Your task to perform on an android device: toggle notification dots Image 0: 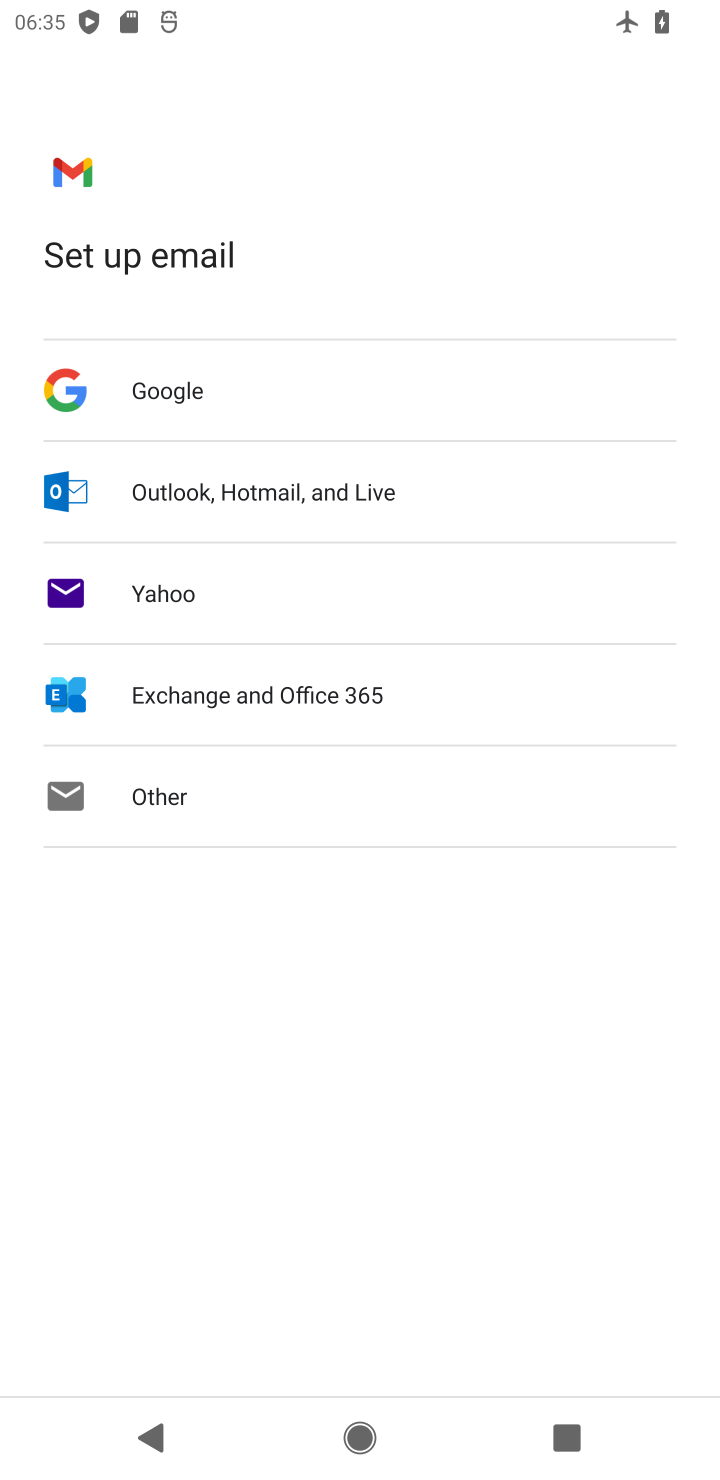
Step 0: press home button
Your task to perform on an android device: toggle notification dots Image 1: 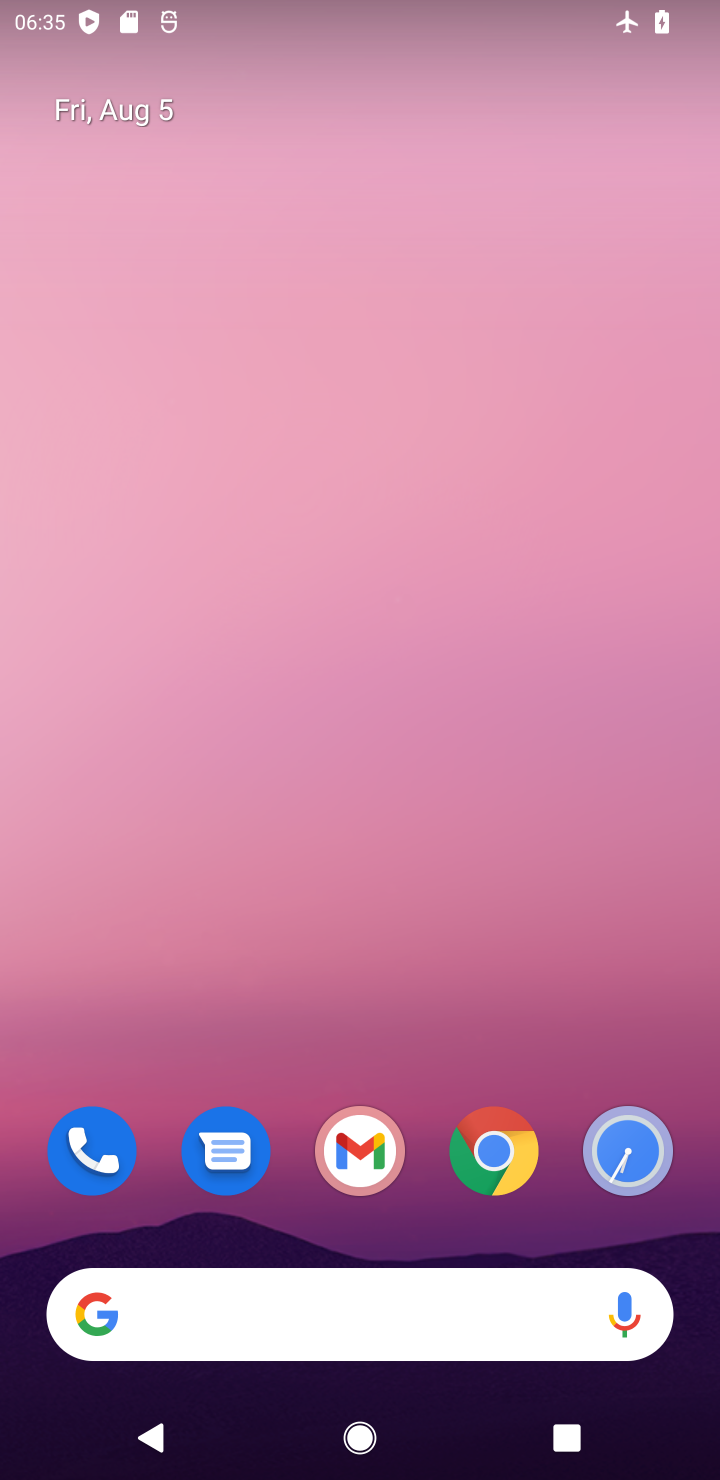
Step 1: drag from (381, 1246) to (290, 6)
Your task to perform on an android device: toggle notification dots Image 2: 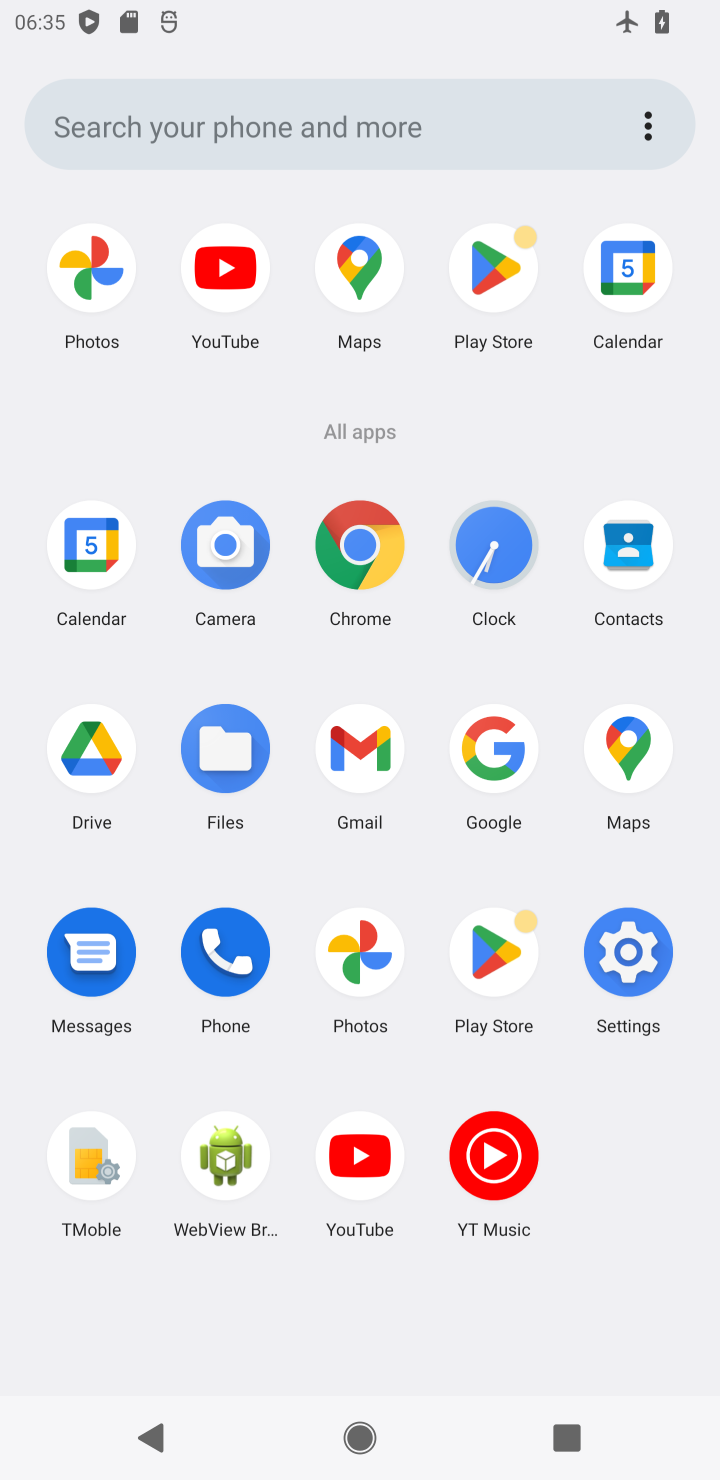
Step 2: click (331, 715)
Your task to perform on an android device: toggle notification dots Image 3: 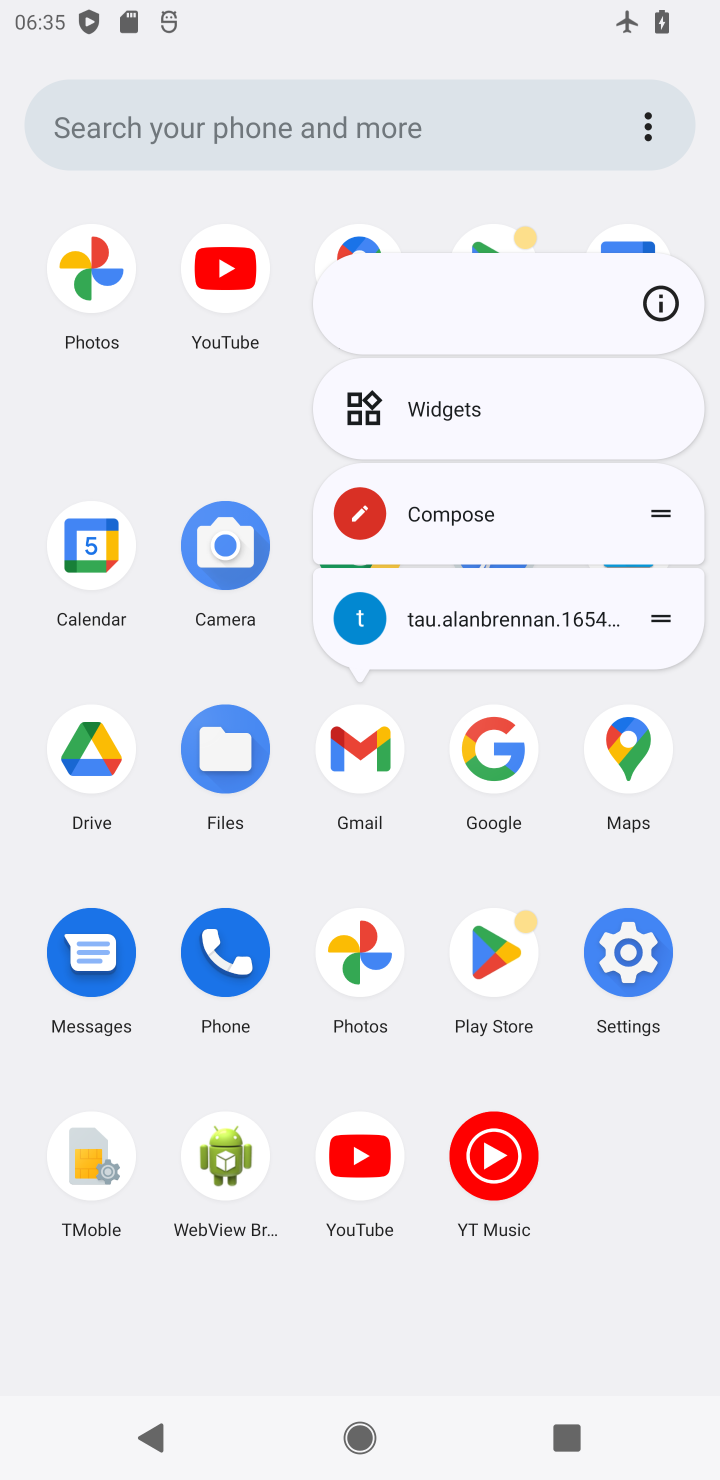
Step 3: click (663, 985)
Your task to perform on an android device: toggle notification dots Image 4: 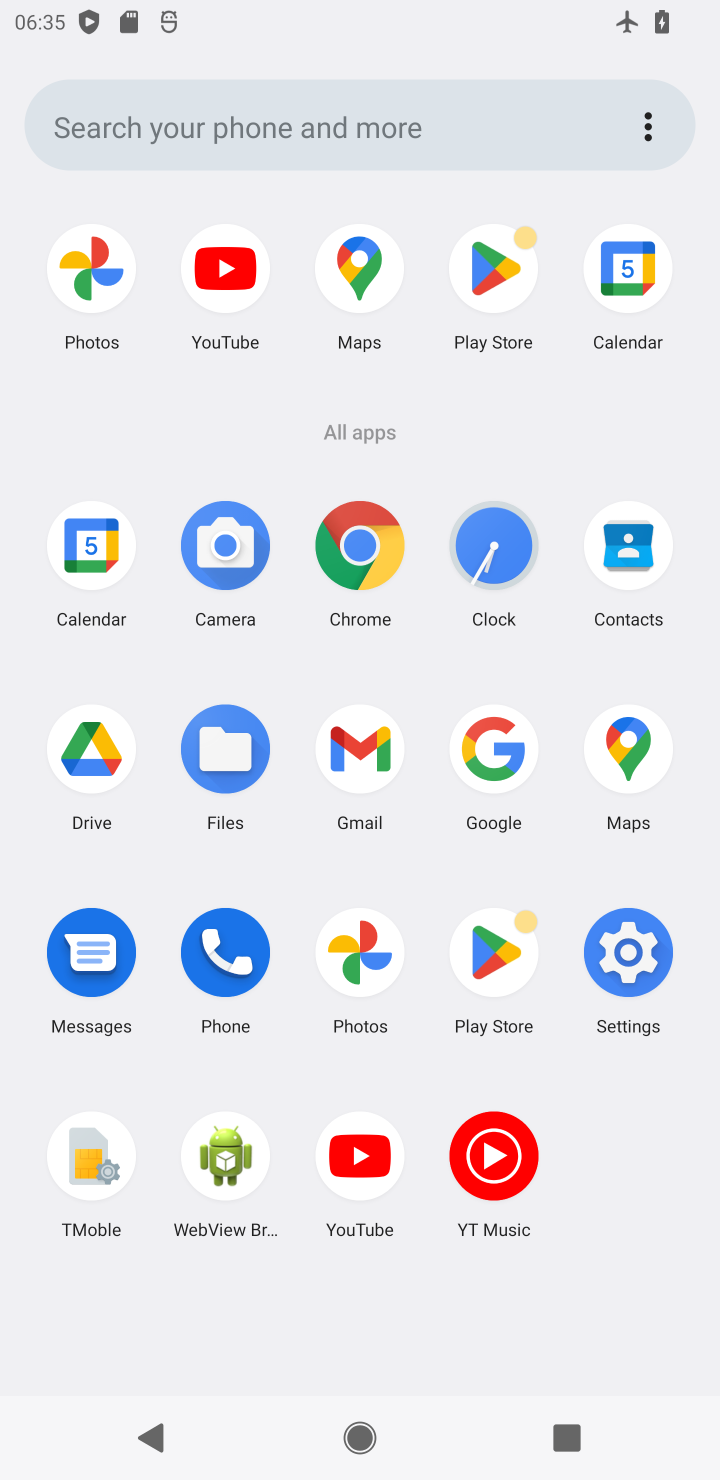
Step 4: click (611, 946)
Your task to perform on an android device: toggle notification dots Image 5: 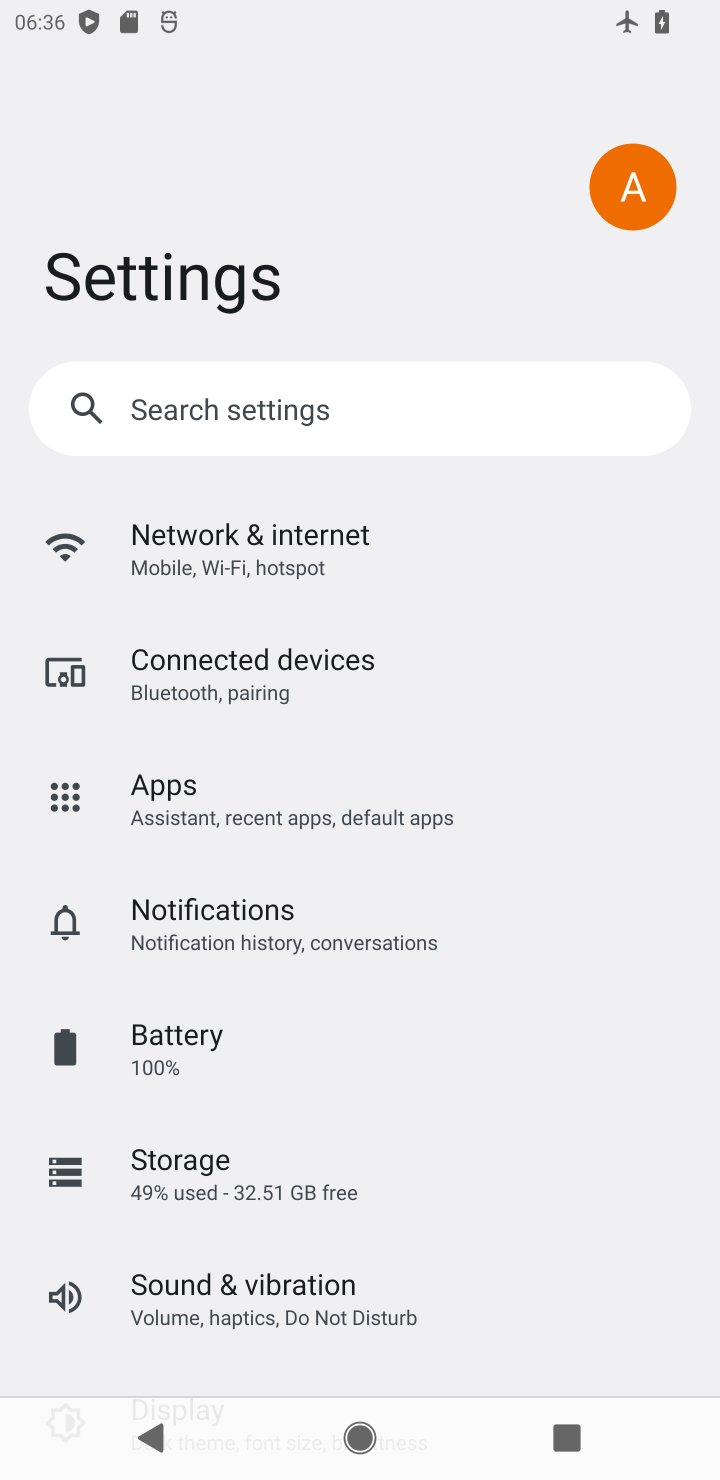
Step 5: click (318, 918)
Your task to perform on an android device: toggle notification dots Image 6: 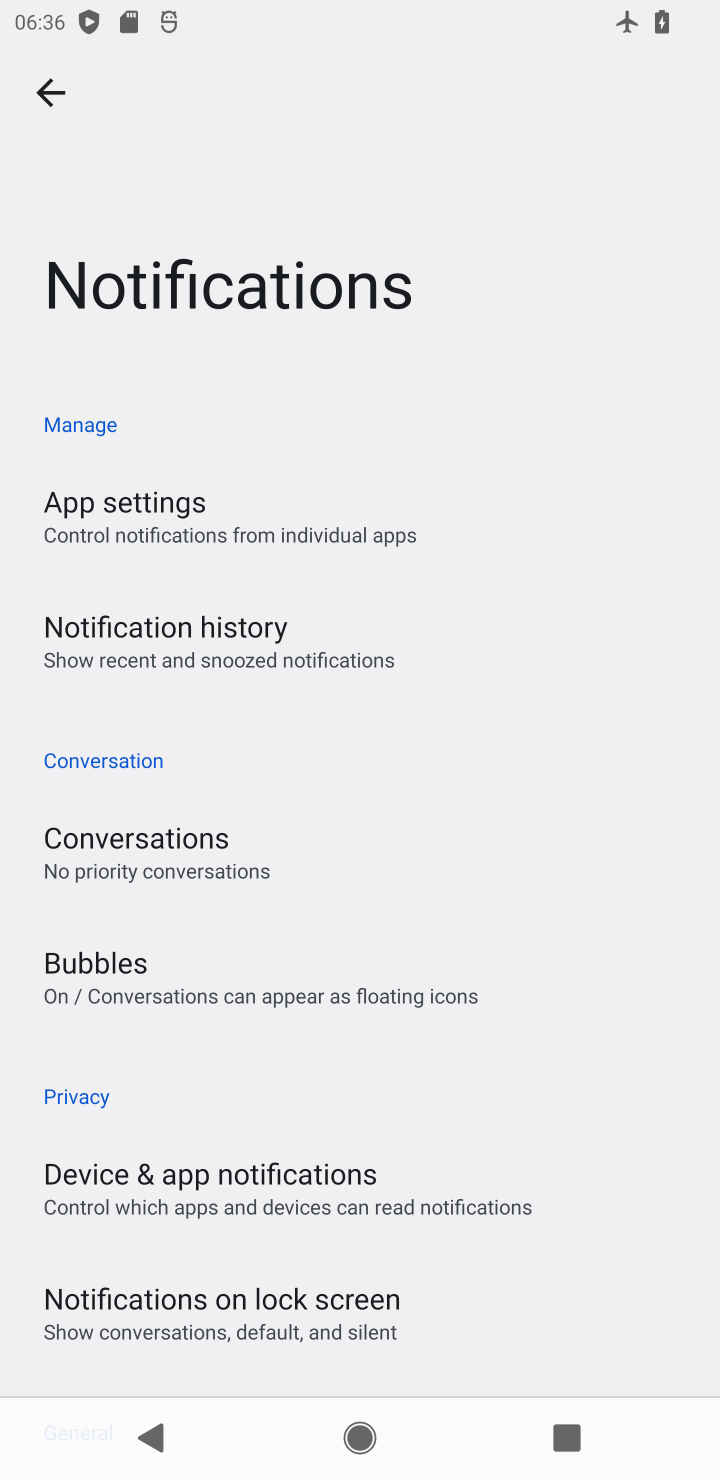
Step 6: drag from (367, 1111) to (252, 185)
Your task to perform on an android device: toggle notification dots Image 7: 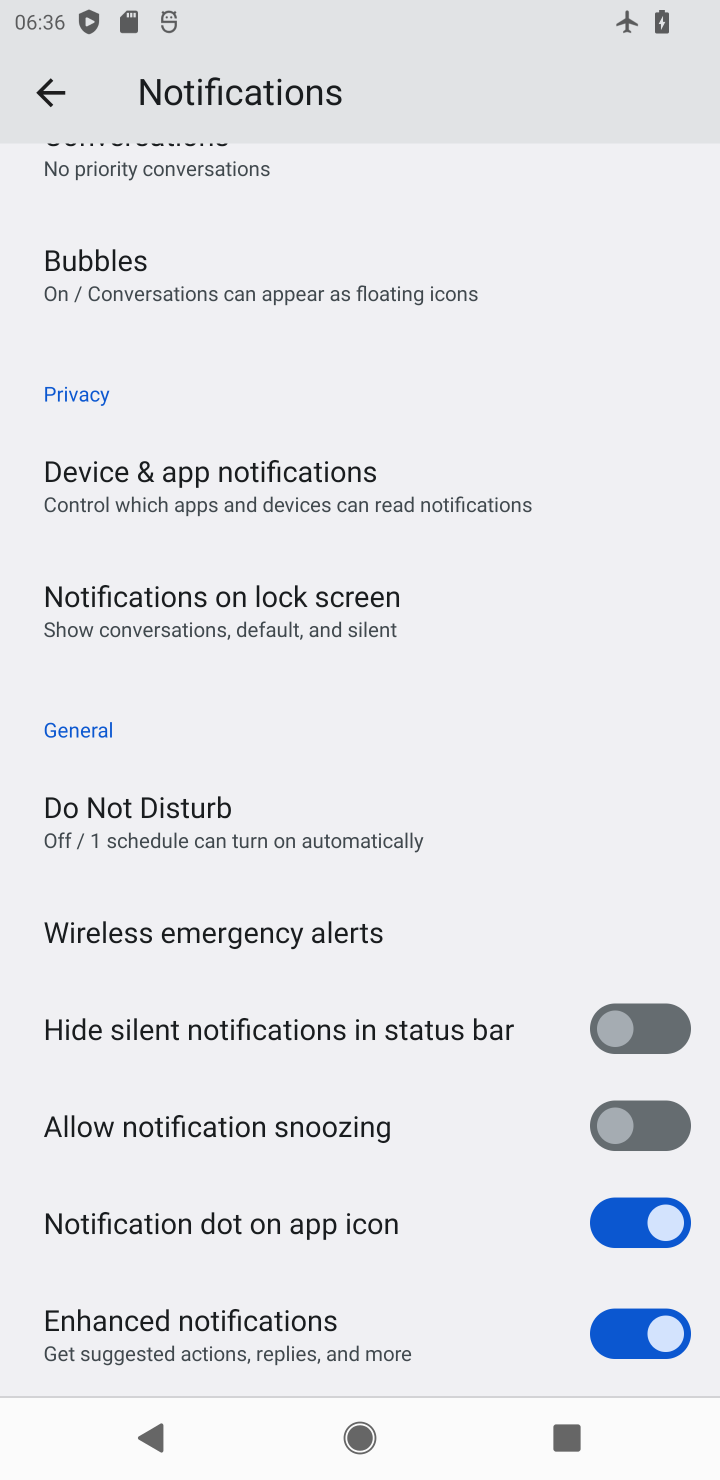
Step 7: click (634, 1221)
Your task to perform on an android device: toggle notification dots Image 8: 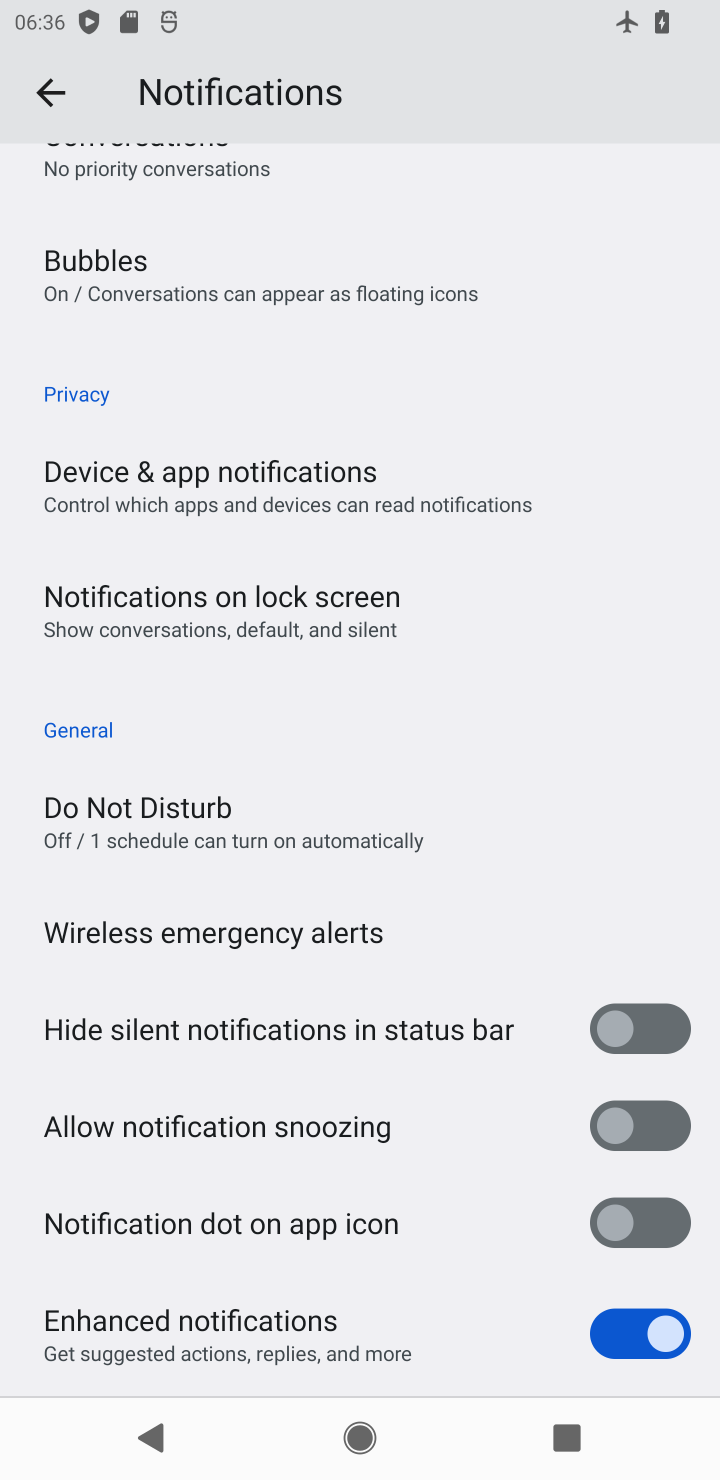
Step 8: task complete